Your task to perform on an android device: Show me recent news Image 0: 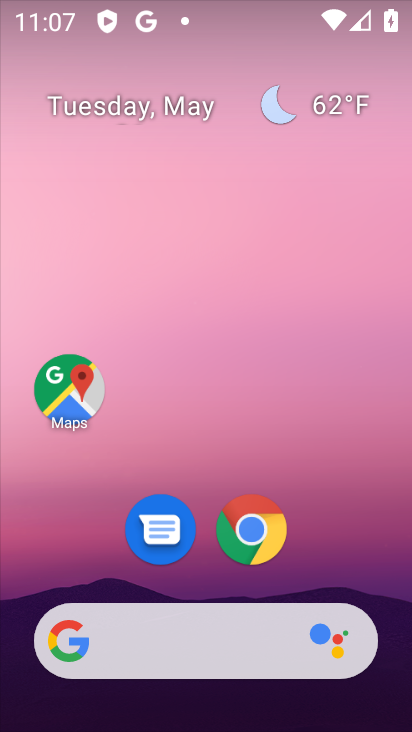
Step 0: click (177, 649)
Your task to perform on an android device: Show me recent news Image 1: 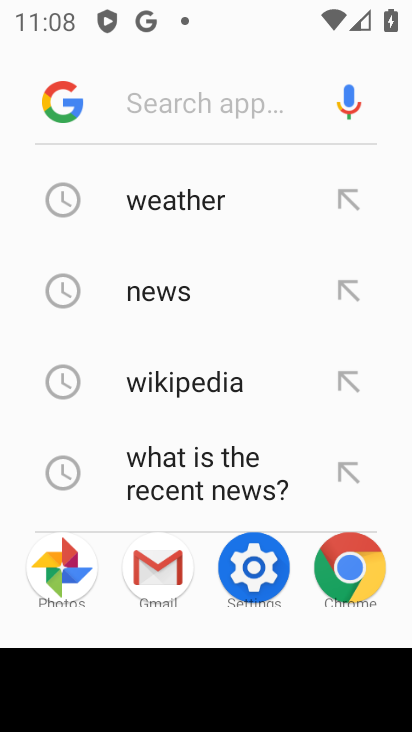
Step 1: click (228, 484)
Your task to perform on an android device: Show me recent news Image 2: 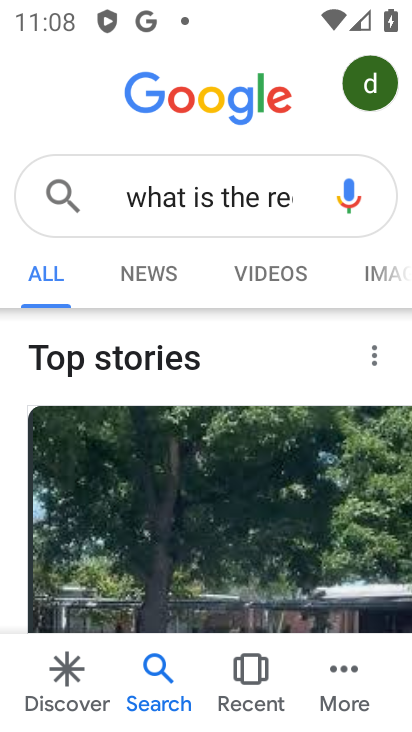
Step 2: task complete